Your task to perform on an android device: Open ESPN.com Image 0: 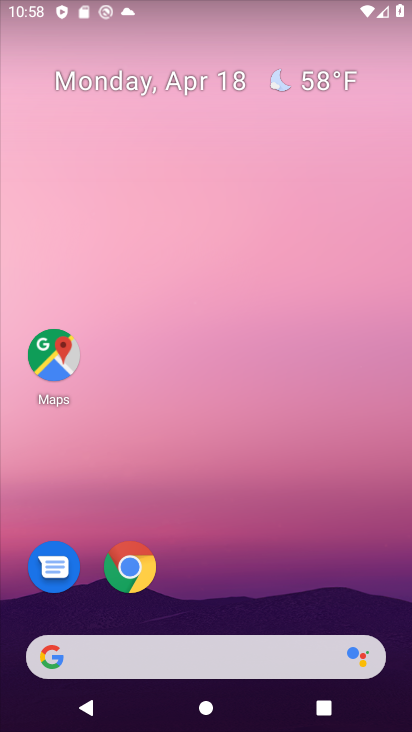
Step 0: click (137, 571)
Your task to perform on an android device: Open ESPN.com Image 1: 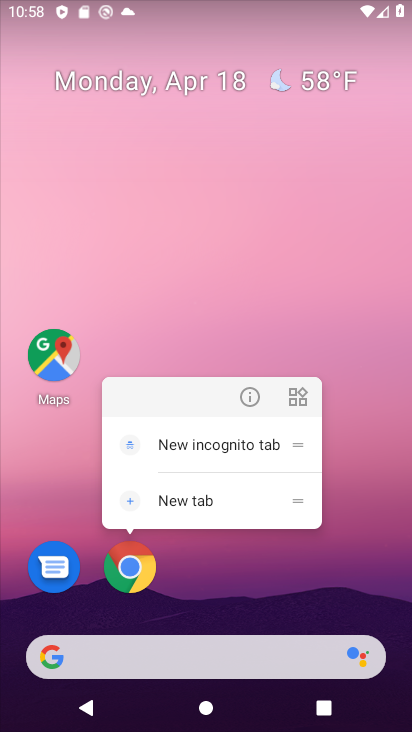
Step 1: click (127, 572)
Your task to perform on an android device: Open ESPN.com Image 2: 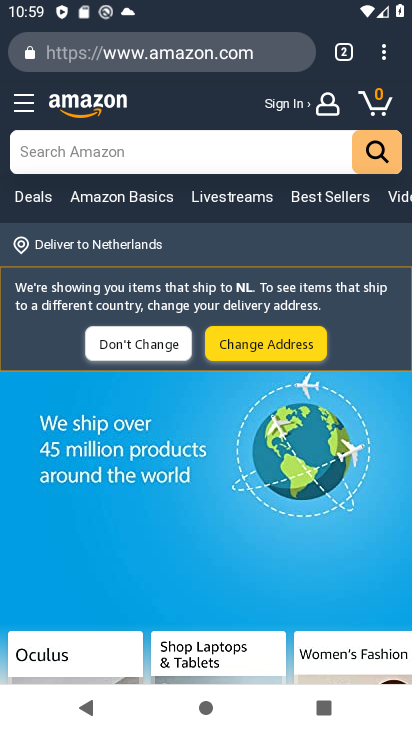
Step 2: click (204, 53)
Your task to perform on an android device: Open ESPN.com Image 3: 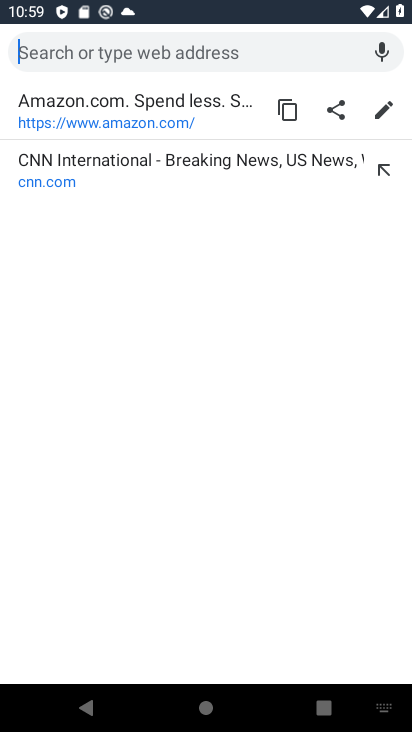
Step 3: type "espn.com"
Your task to perform on an android device: Open ESPN.com Image 4: 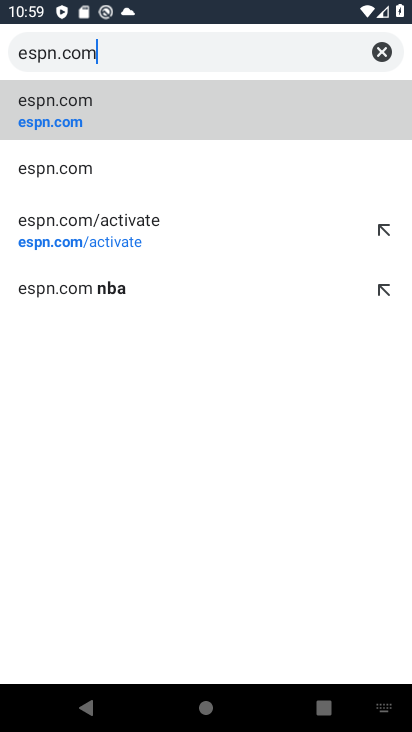
Step 4: click (59, 106)
Your task to perform on an android device: Open ESPN.com Image 5: 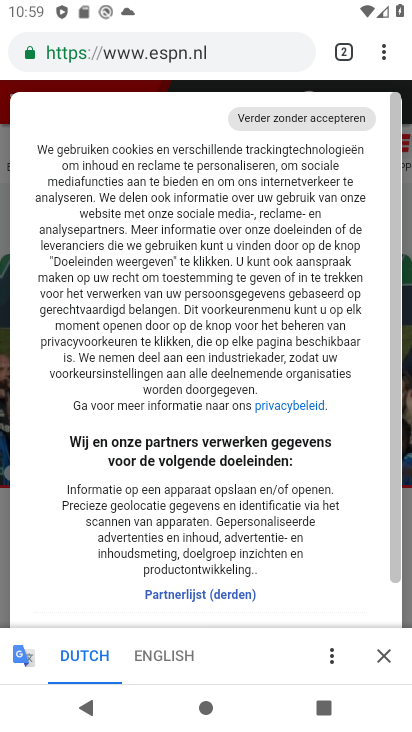
Step 5: task complete